Your task to perform on an android device: refresh tabs in the chrome app Image 0: 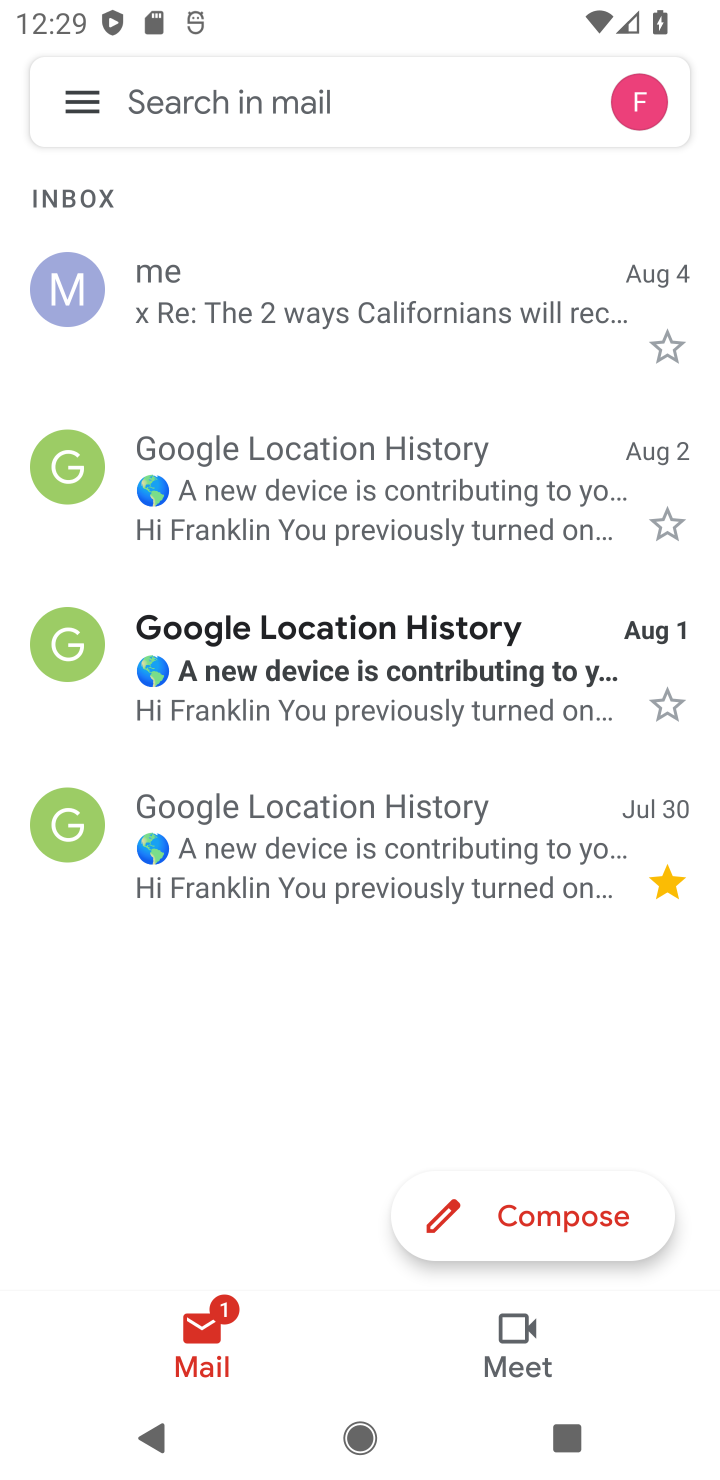
Step 0: press home button
Your task to perform on an android device: refresh tabs in the chrome app Image 1: 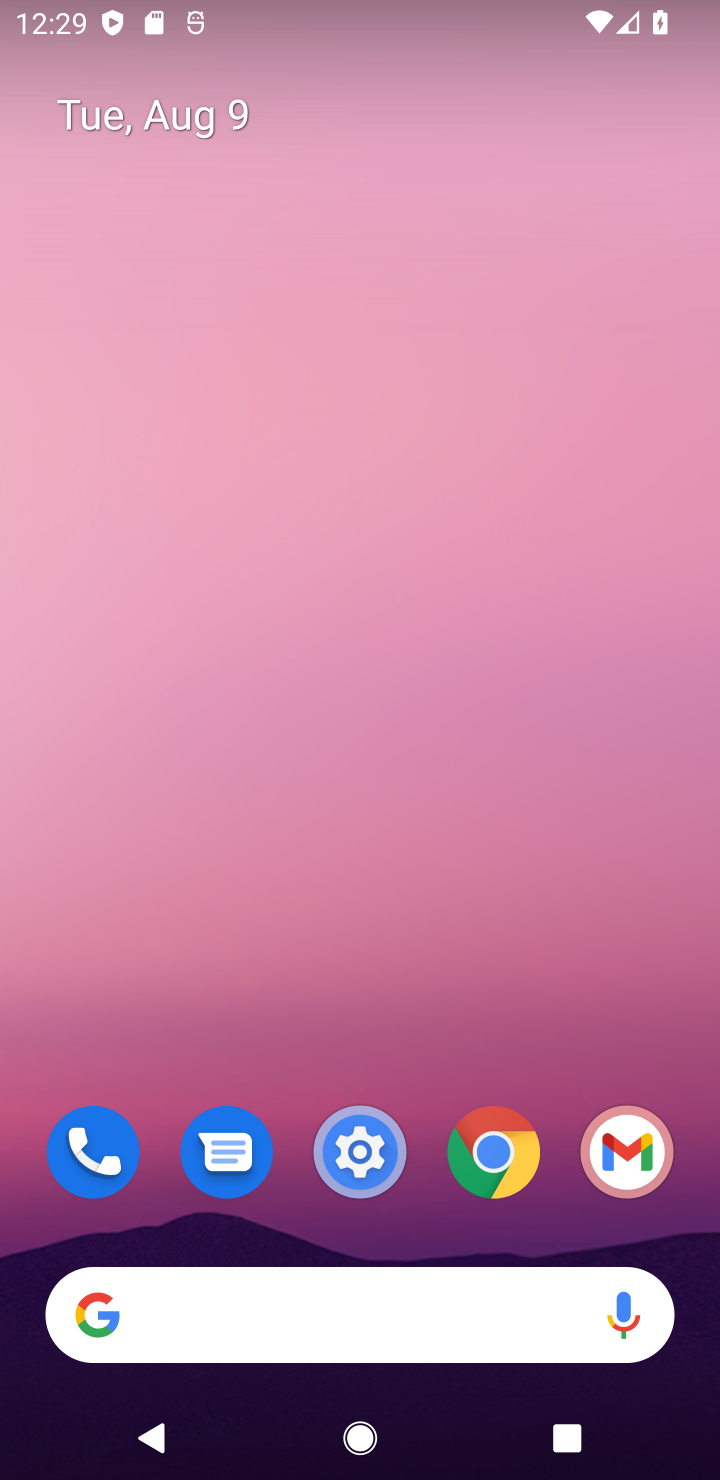
Step 1: click (521, 1160)
Your task to perform on an android device: refresh tabs in the chrome app Image 2: 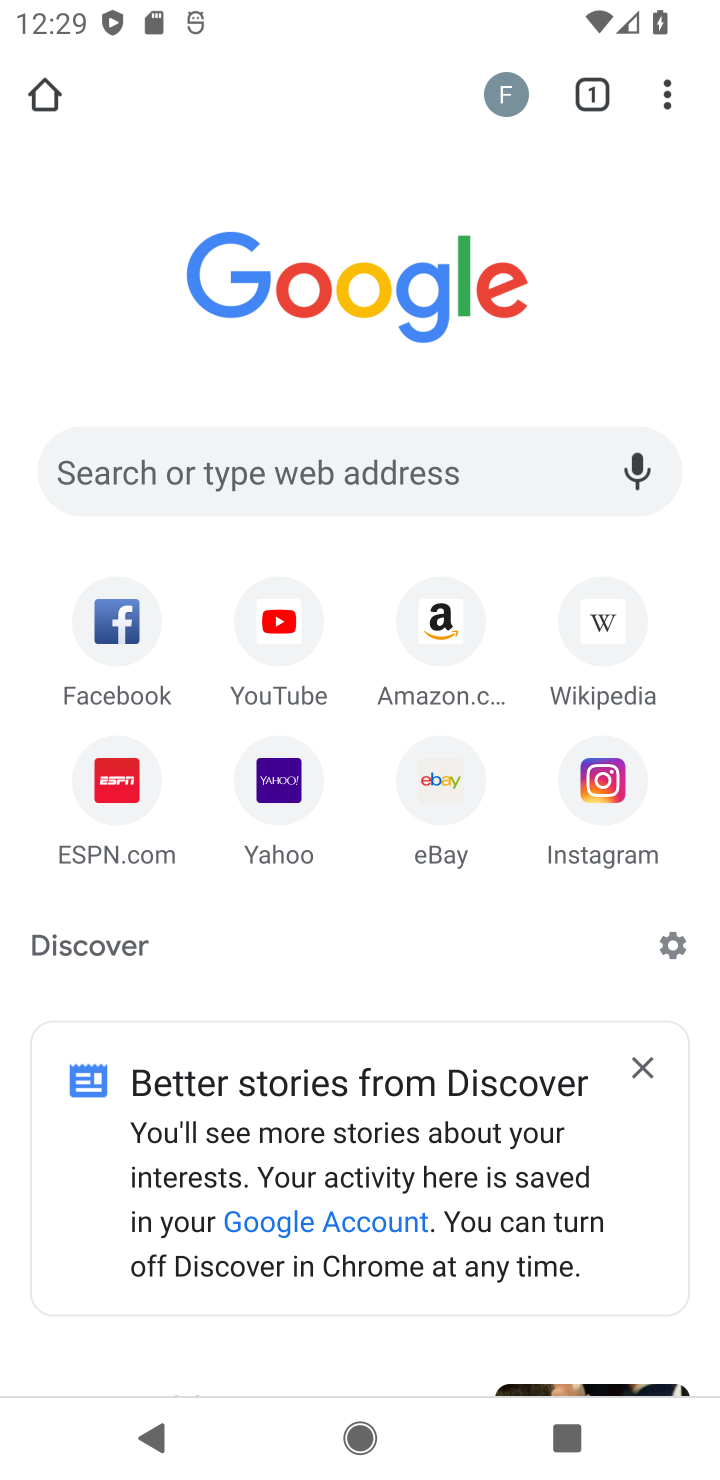
Step 2: click (660, 99)
Your task to perform on an android device: refresh tabs in the chrome app Image 3: 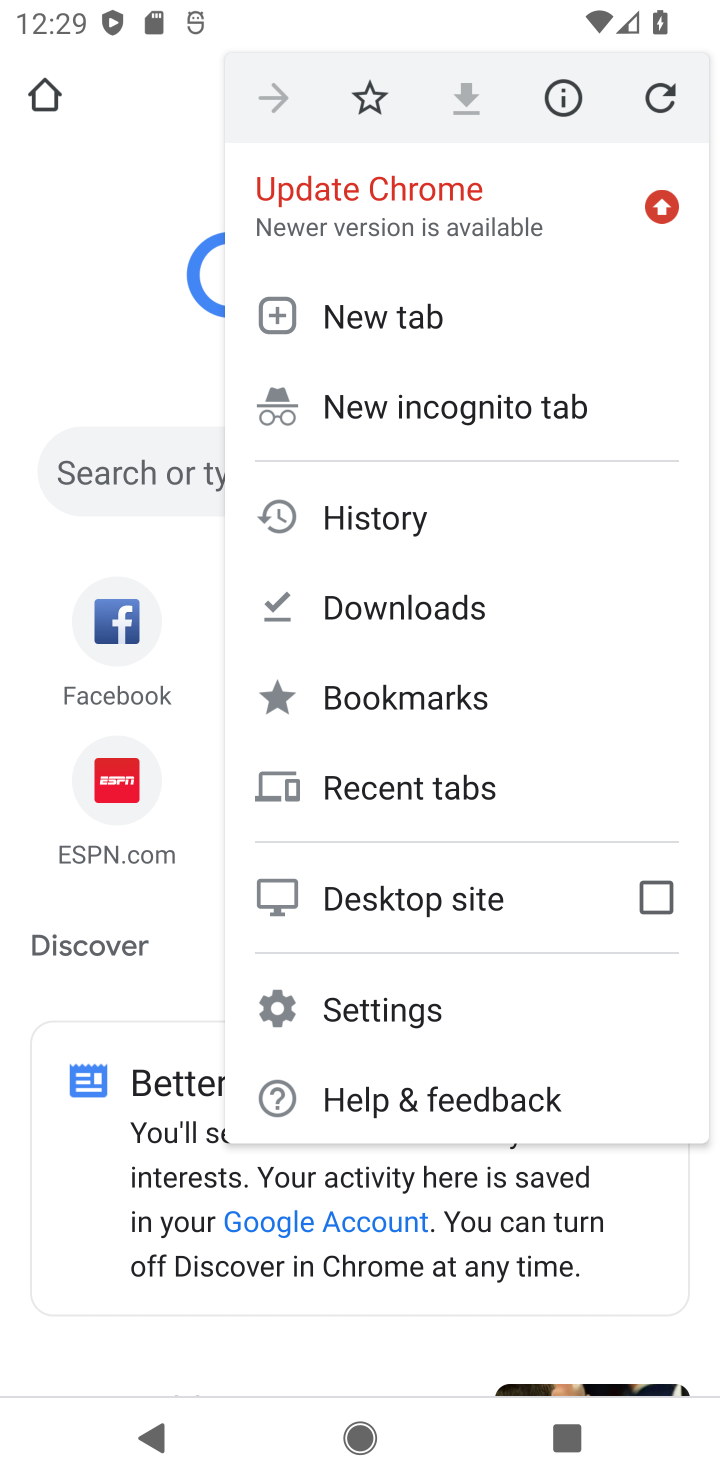
Step 3: click (677, 82)
Your task to perform on an android device: refresh tabs in the chrome app Image 4: 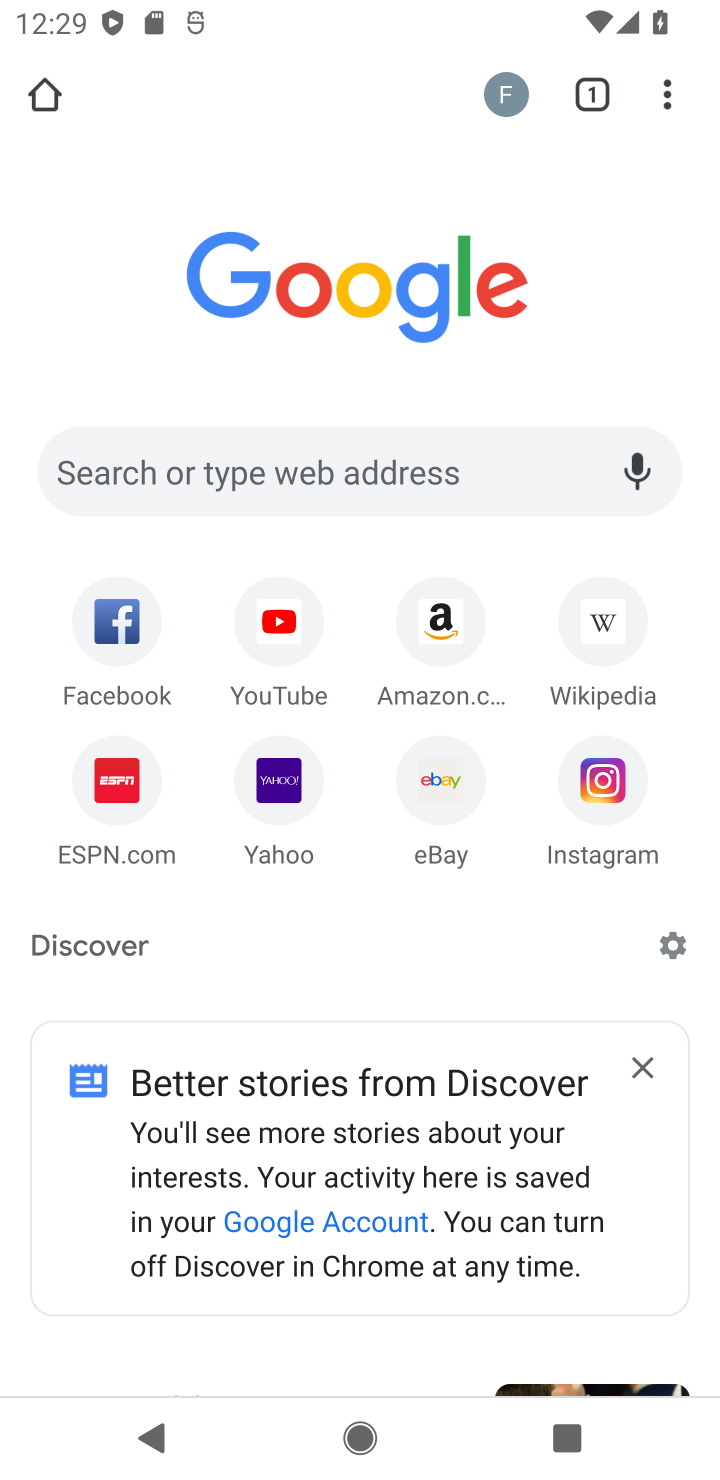
Step 4: task complete